Your task to perform on an android device: turn off notifications in google photos Image 0: 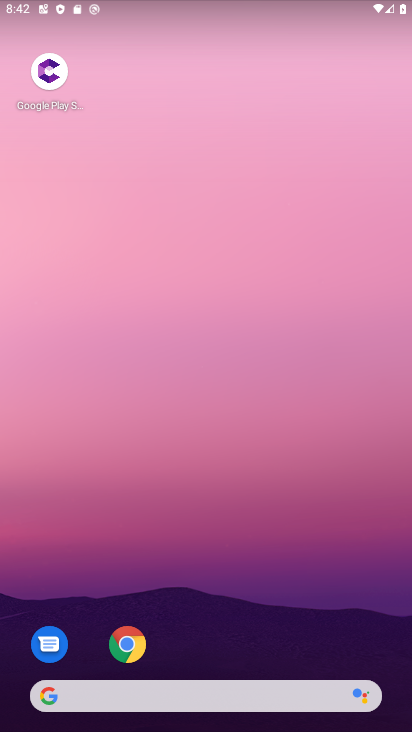
Step 0: drag from (302, 569) to (314, 43)
Your task to perform on an android device: turn off notifications in google photos Image 1: 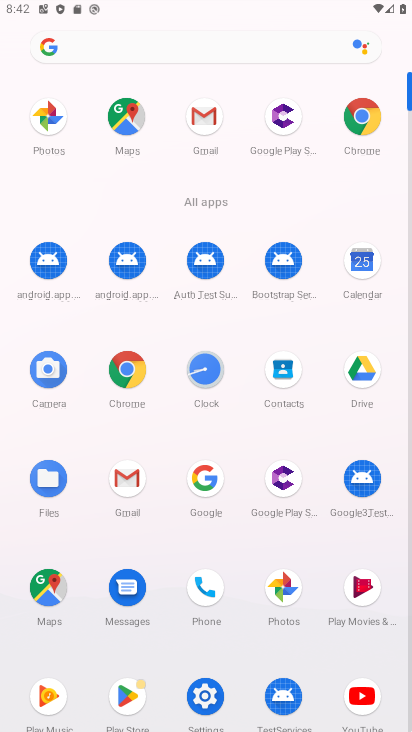
Step 1: click (284, 574)
Your task to perform on an android device: turn off notifications in google photos Image 2: 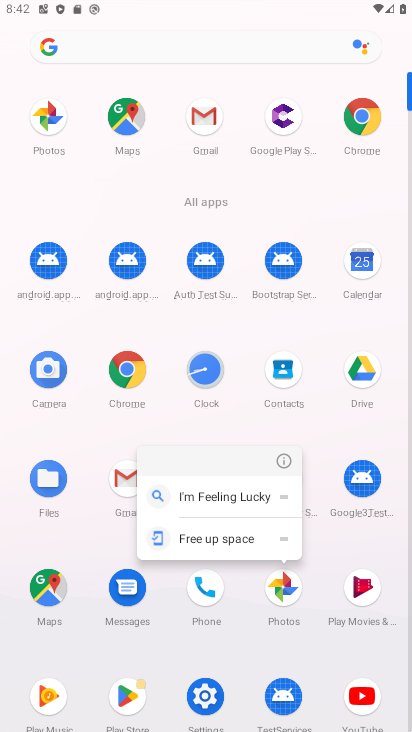
Step 2: click (278, 462)
Your task to perform on an android device: turn off notifications in google photos Image 3: 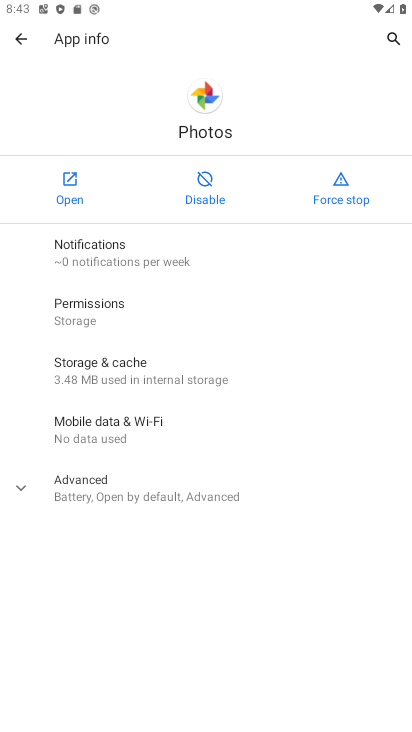
Step 3: click (120, 252)
Your task to perform on an android device: turn off notifications in google photos Image 4: 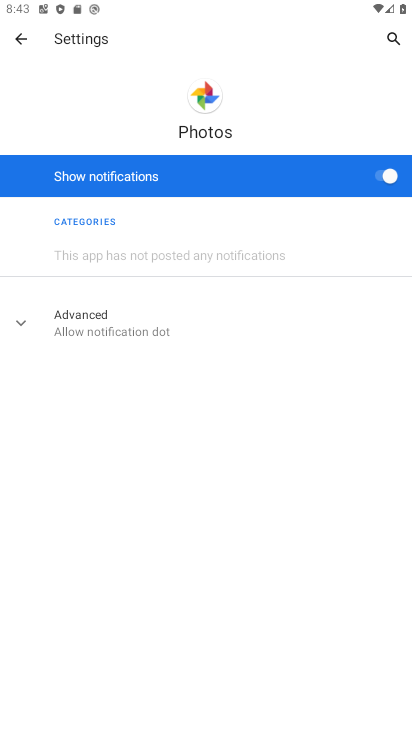
Step 4: click (279, 162)
Your task to perform on an android device: turn off notifications in google photos Image 5: 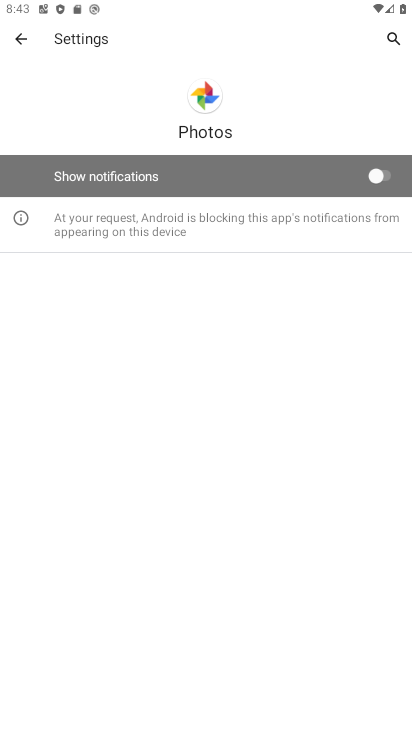
Step 5: task complete